Your task to perform on an android device: Go to accessibility settings Image 0: 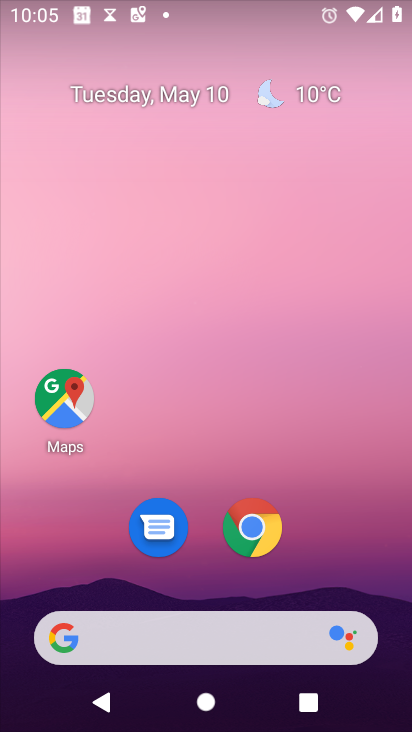
Step 0: drag from (348, 465) to (328, 6)
Your task to perform on an android device: Go to accessibility settings Image 1: 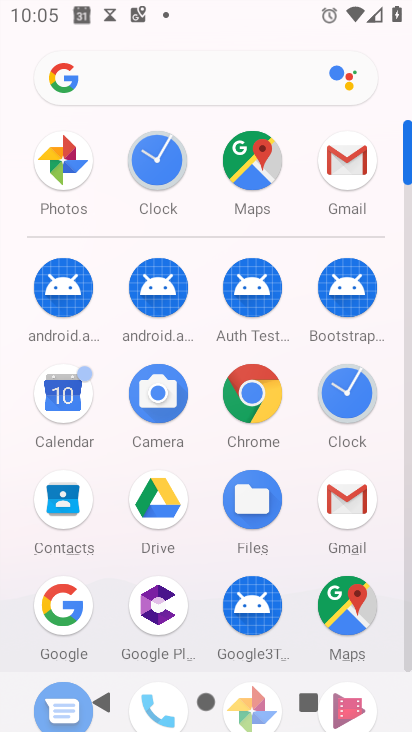
Step 1: drag from (292, 233) to (282, 0)
Your task to perform on an android device: Go to accessibility settings Image 2: 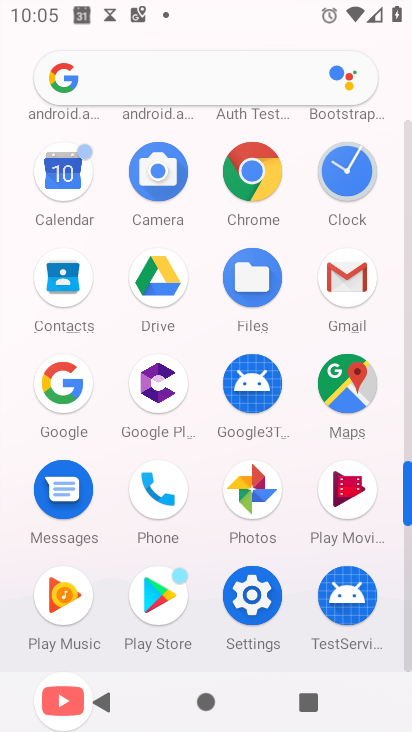
Step 2: click (255, 587)
Your task to perform on an android device: Go to accessibility settings Image 3: 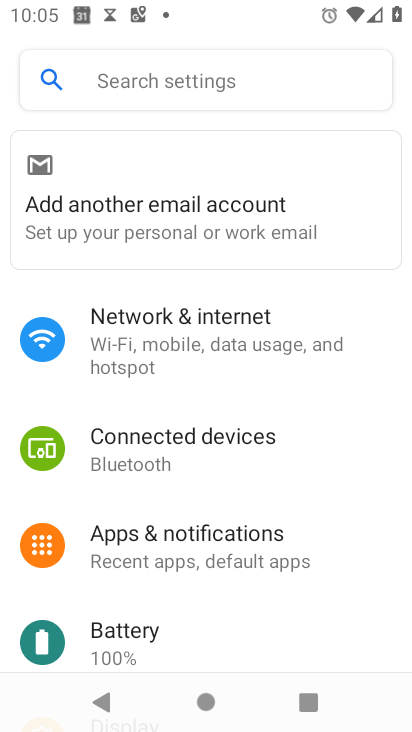
Step 3: drag from (218, 531) to (177, 328)
Your task to perform on an android device: Go to accessibility settings Image 4: 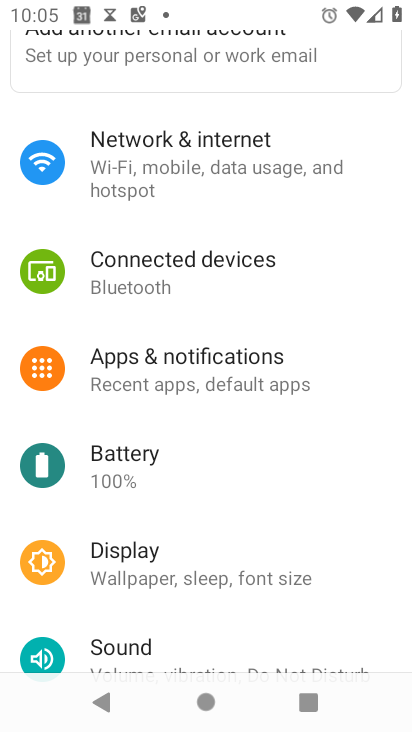
Step 4: drag from (171, 553) to (158, 305)
Your task to perform on an android device: Go to accessibility settings Image 5: 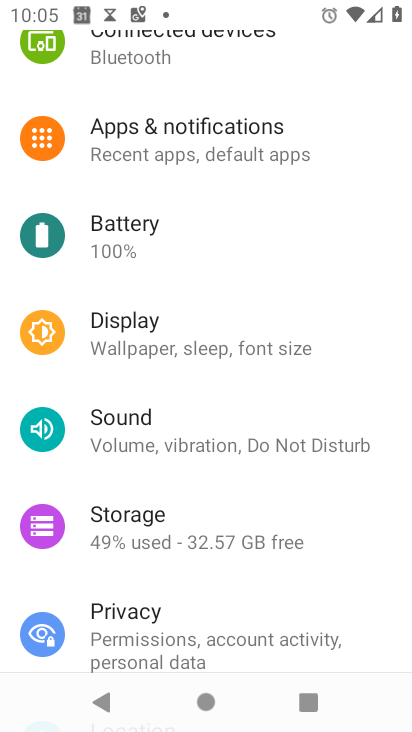
Step 5: drag from (215, 595) to (190, 166)
Your task to perform on an android device: Go to accessibility settings Image 6: 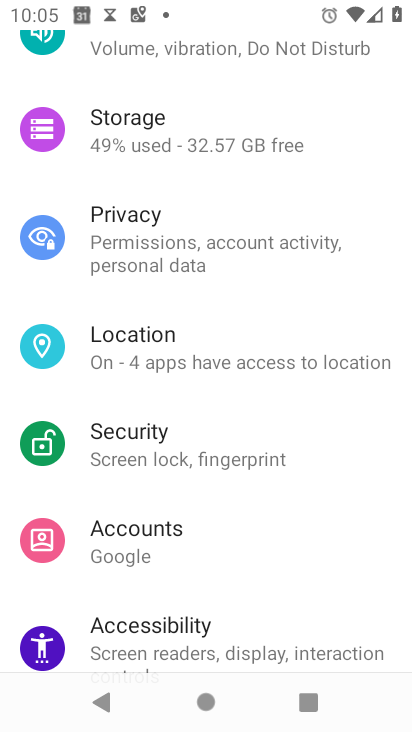
Step 6: click (181, 627)
Your task to perform on an android device: Go to accessibility settings Image 7: 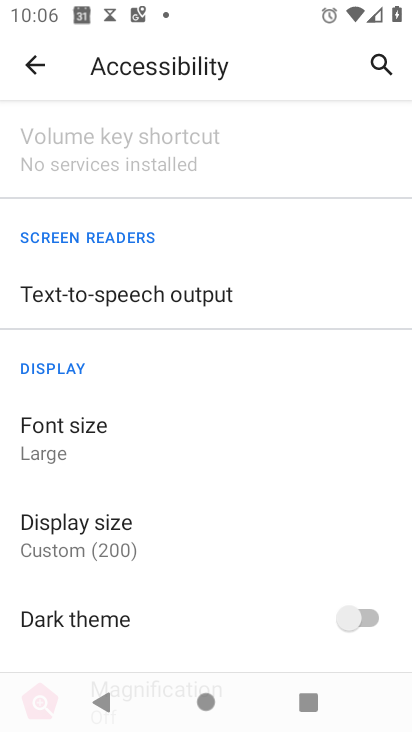
Step 7: task complete